Your task to perform on an android device: Open the Play Movies app and select the watchlist tab. Image 0: 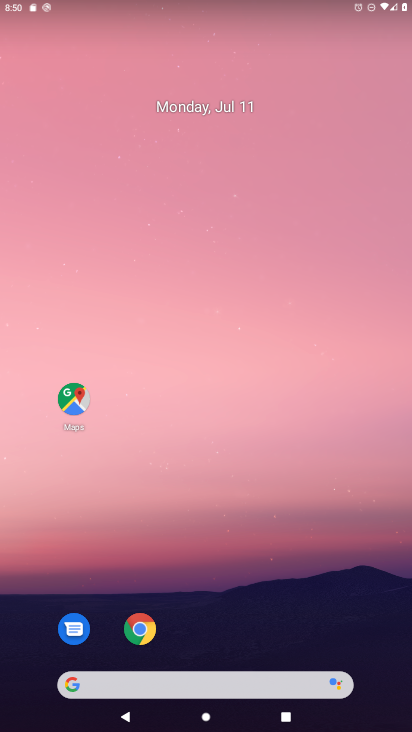
Step 0: drag from (231, 611) to (245, 79)
Your task to perform on an android device: Open the Play Movies app and select the watchlist tab. Image 1: 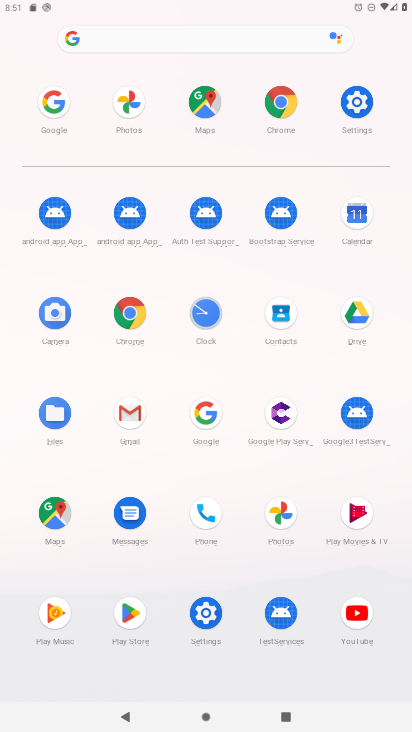
Step 1: click (352, 517)
Your task to perform on an android device: Open the Play Movies app and select the watchlist tab. Image 2: 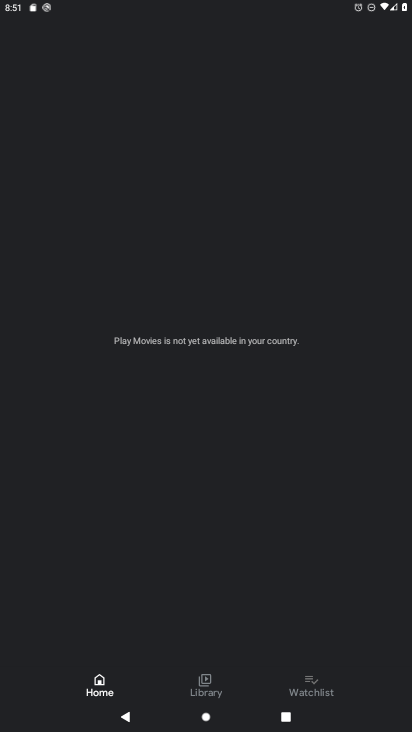
Step 2: click (307, 689)
Your task to perform on an android device: Open the Play Movies app and select the watchlist tab. Image 3: 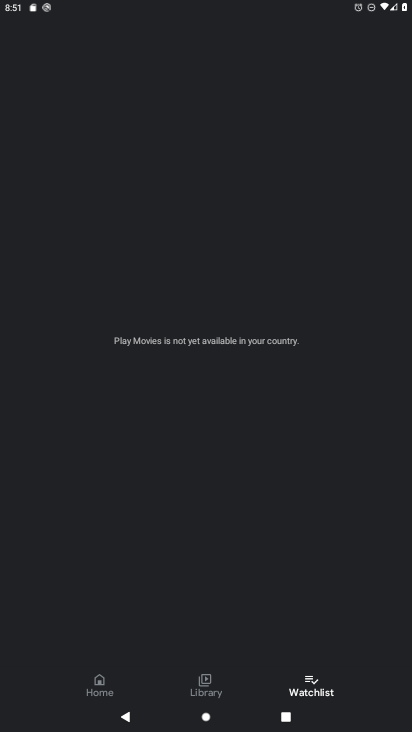
Step 3: task complete